Your task to perform on an android device: find snoozed emails in the gmail app Image 0: 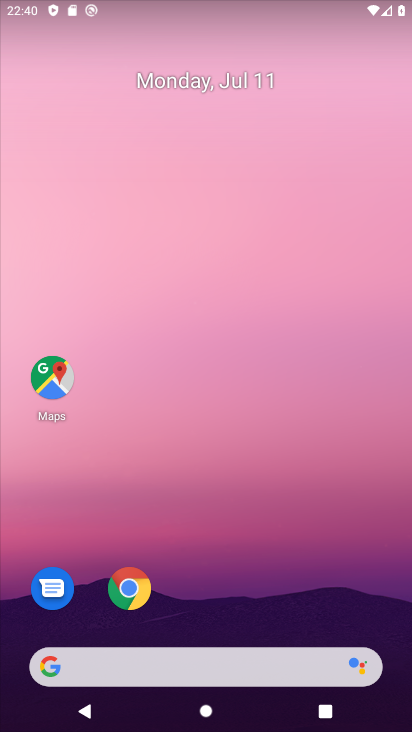
Step 0: drag from (248, 517) to (248, 47)
Your task to perform on an android device: find snoozed emails in the gmail app Image 1: 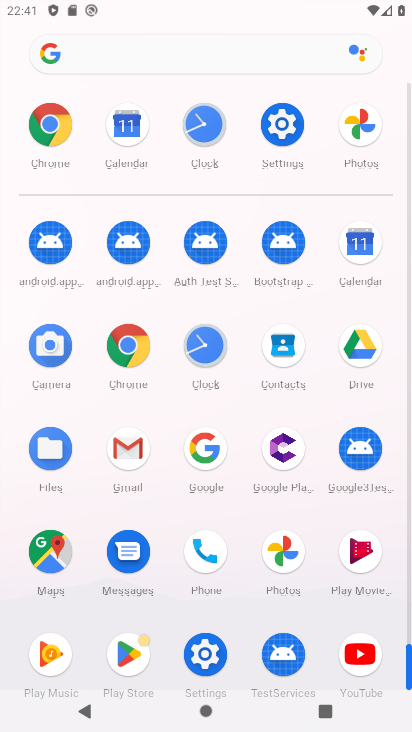
Step 1: click (132, 439)
Your task to perform on an android device: find snoozed emails in the gmail app Image 2: 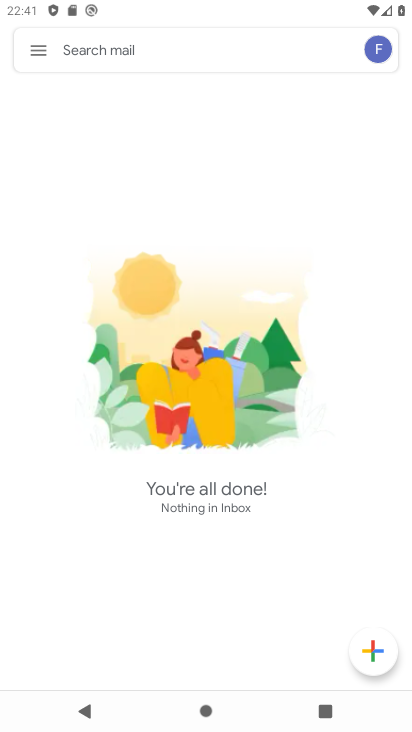
Step 2: click (32, 48)
Your task to perform on an android device: find snoozed emails in the gmail app Image 3: 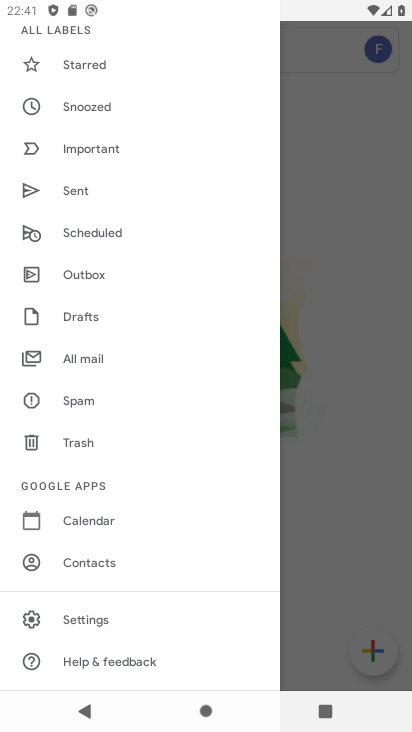
Step 3: click (95, 98)
Your task to perform on an android device: find snoozed emails in the gmail app Image 4: 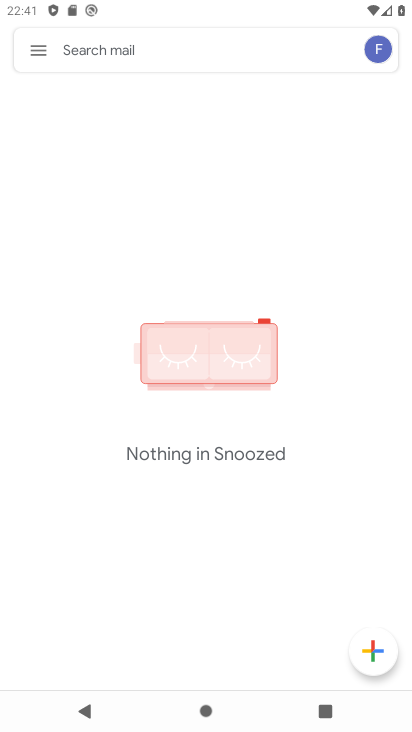
Step 4: task complete